Your task to perform on an android device: Clear the shopping cart on target. Search for "acer predator" on target, select the first entry, add it to the cart, then select checkout. Image 0: 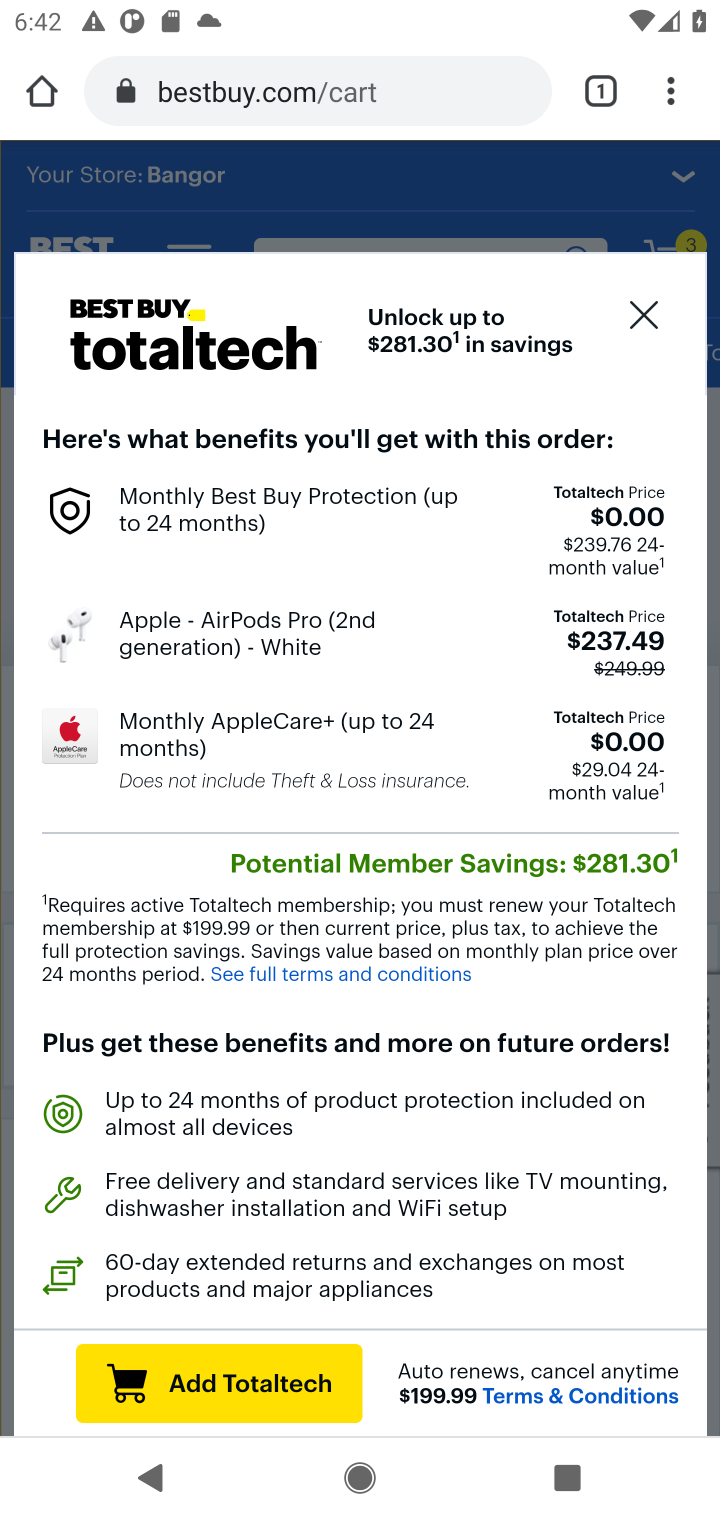
Step 0: click (368, 92)
Your task to perform on an android device: Clear the shopping cart on target. Search for "acer predator" on target, select the first entry, add it to the cart, then select checkout. Image 1: 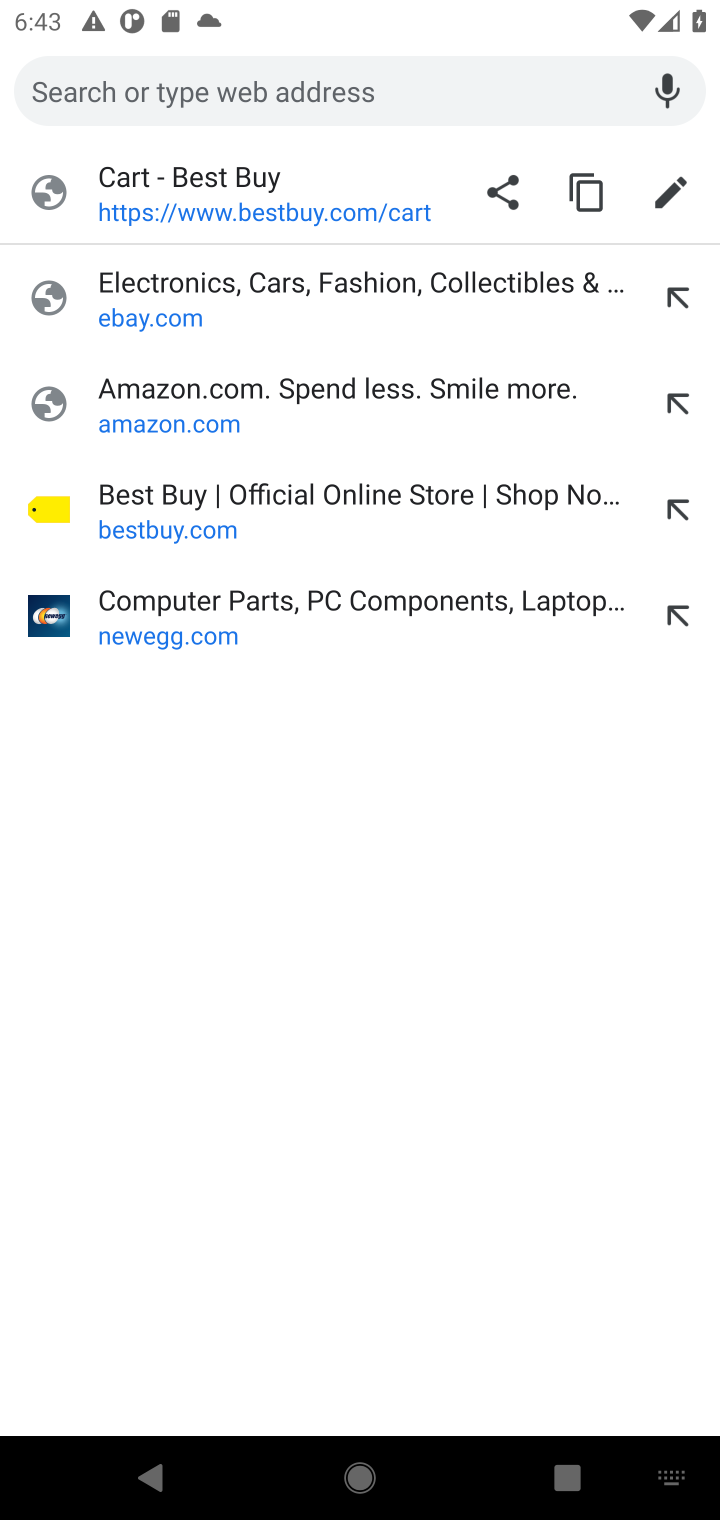
Step 1: type "target.com"
Your task to perform on an android device: Clear the shopping cart on target. Search for "acer predator" on target, select the first entry, add it to the cart, then select checkout. Image 2: 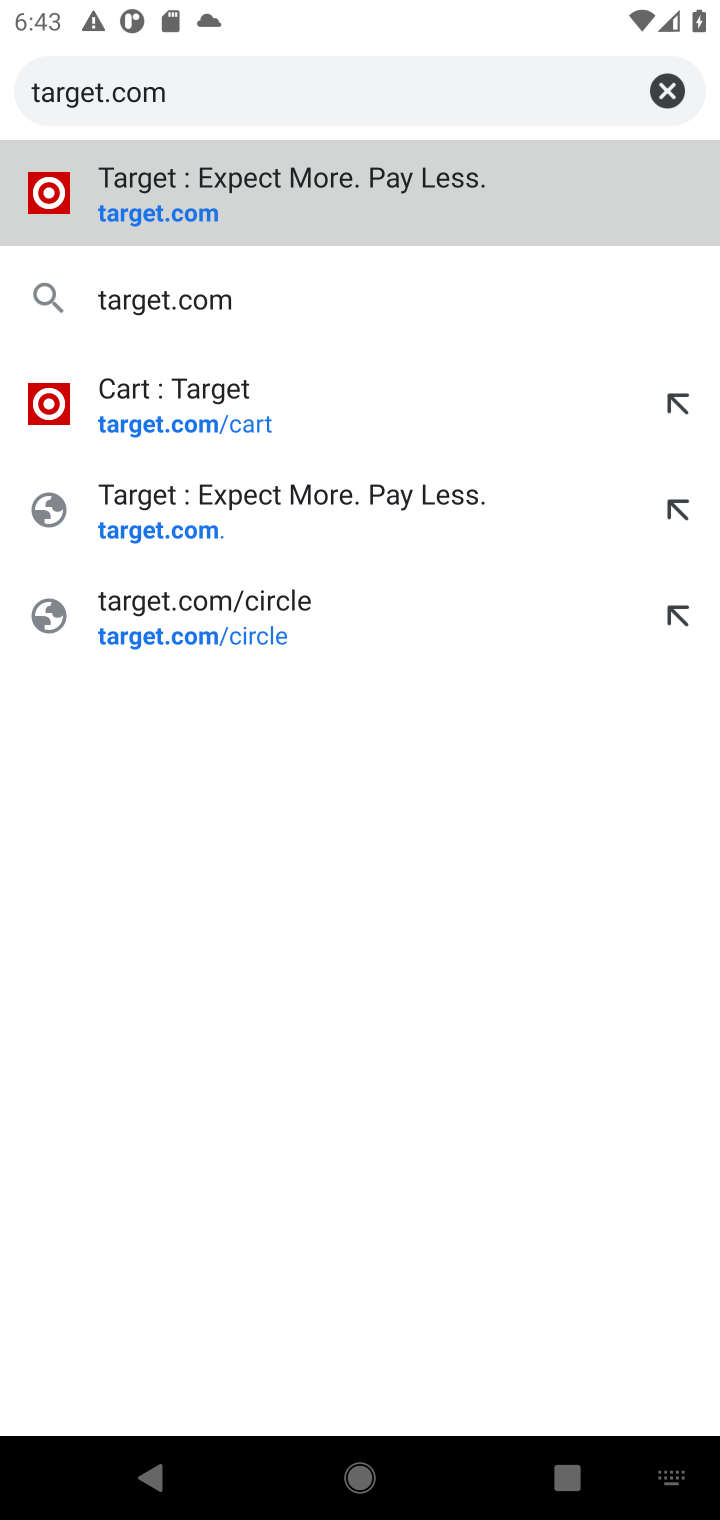
Step 2: press enter
Your task to perform on an android device: Clear the shopping cart on target. Search for "acer predator" on target, select the first entry, add it to the cart, then select checkout. Image 3: 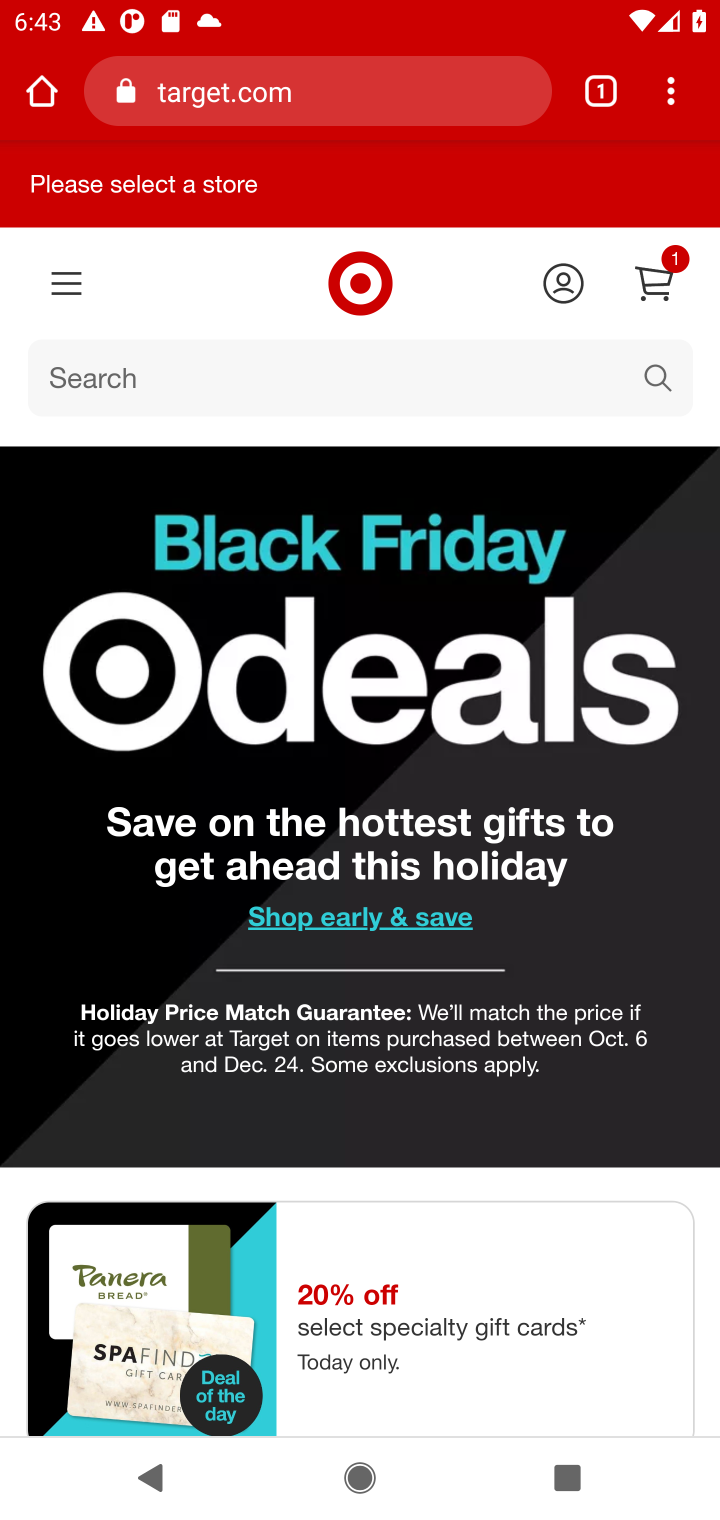
Step 3: click (678, 268)
Your task to perform on an android device: Clear the shopping cart on target. Search for "acer predator" on target, select the first entry, add it to the cart, then select checkout. Image 4: 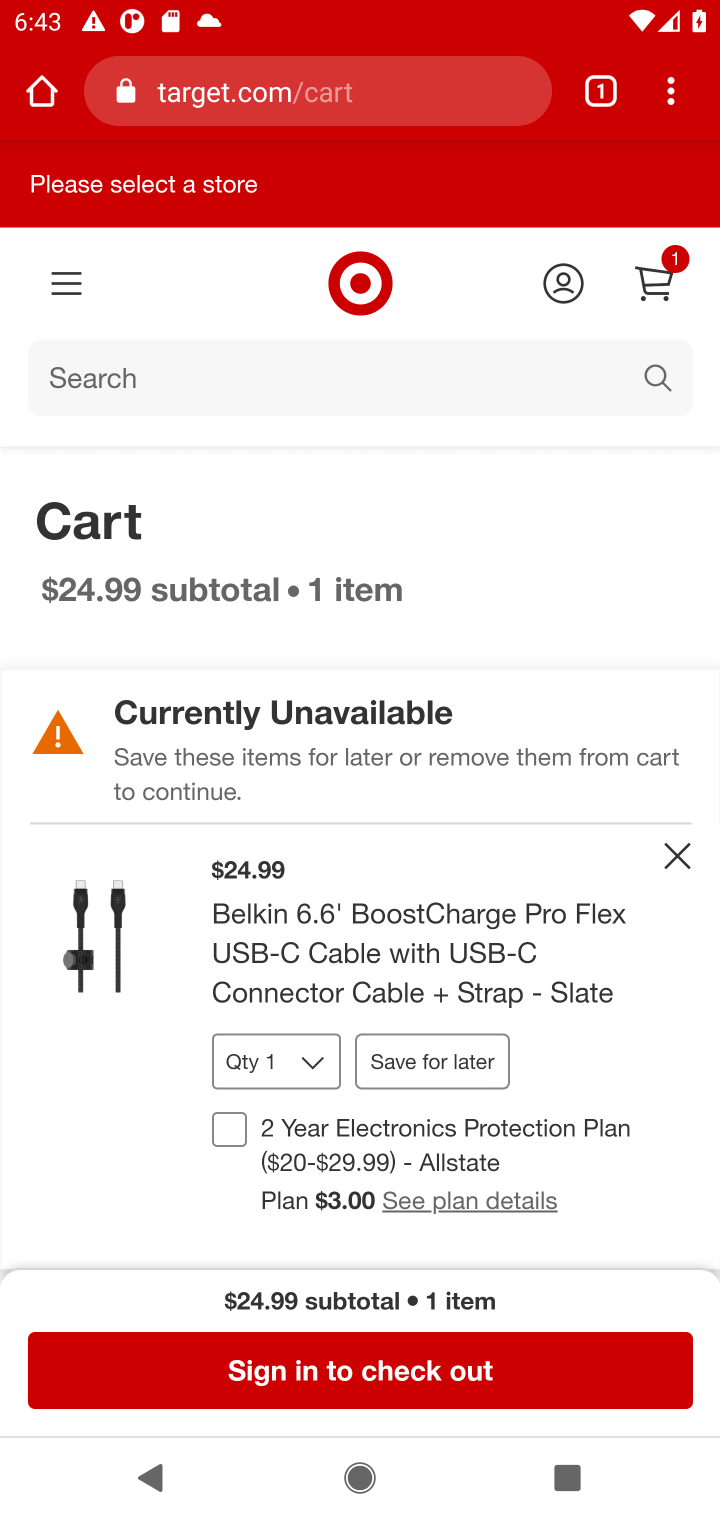
Step 4: click (684, 862)
Your task to perform on an android device: Clear the shopping cart on target. Search for "acer predator" on target, select the first entry, add it to the cart, then select checkout. Image 5: 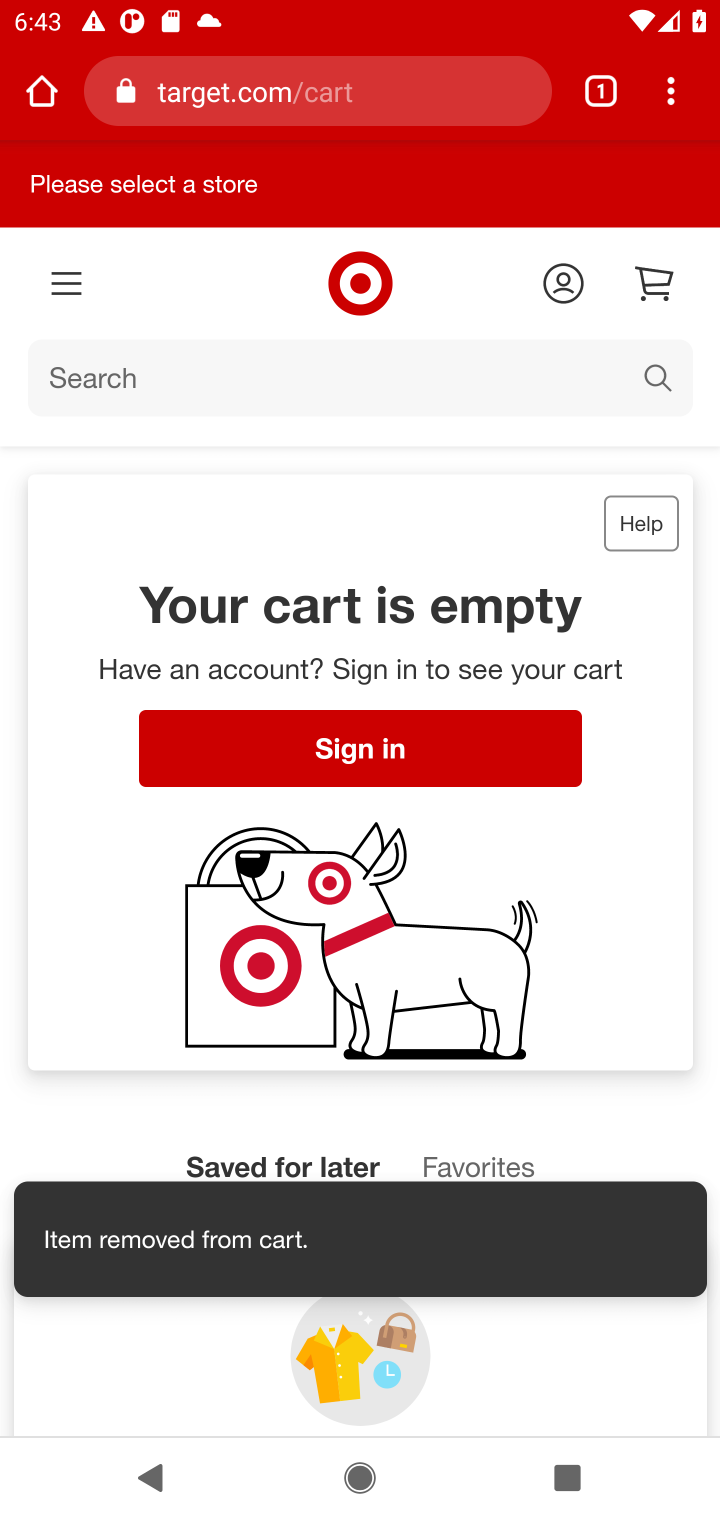
Step 5: click (233, 395)
Your task to perform on an android device: Clear the shopping cart on target. Search for "acer predator" on target, select the first entry, add it to the cart, then select checkout. Image 6: 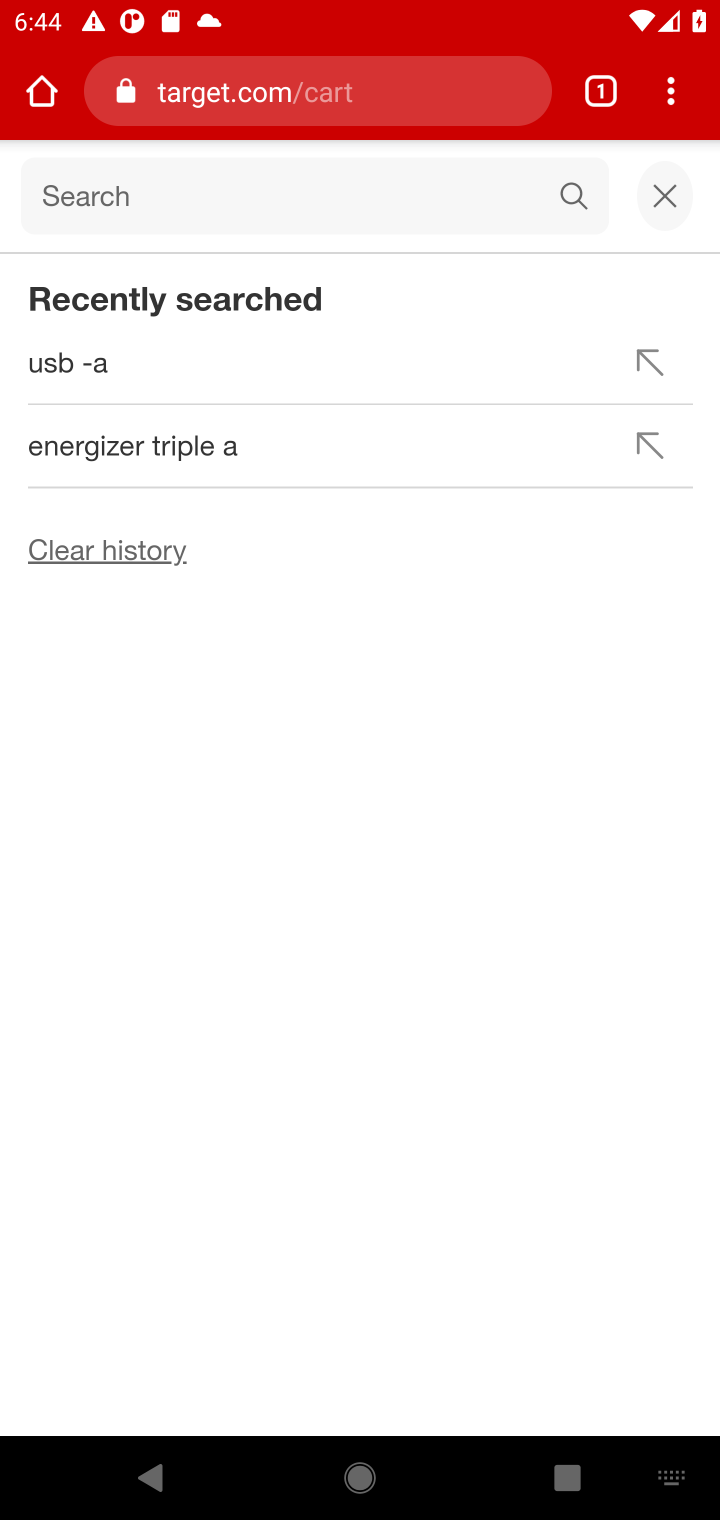
Step 6: type "acer predator"
Your task to perform on an android device: Clear the shopping cart on target. Search for "acer predator" on target, select the first entry, add it to the cart, then select checkout. Image 7: 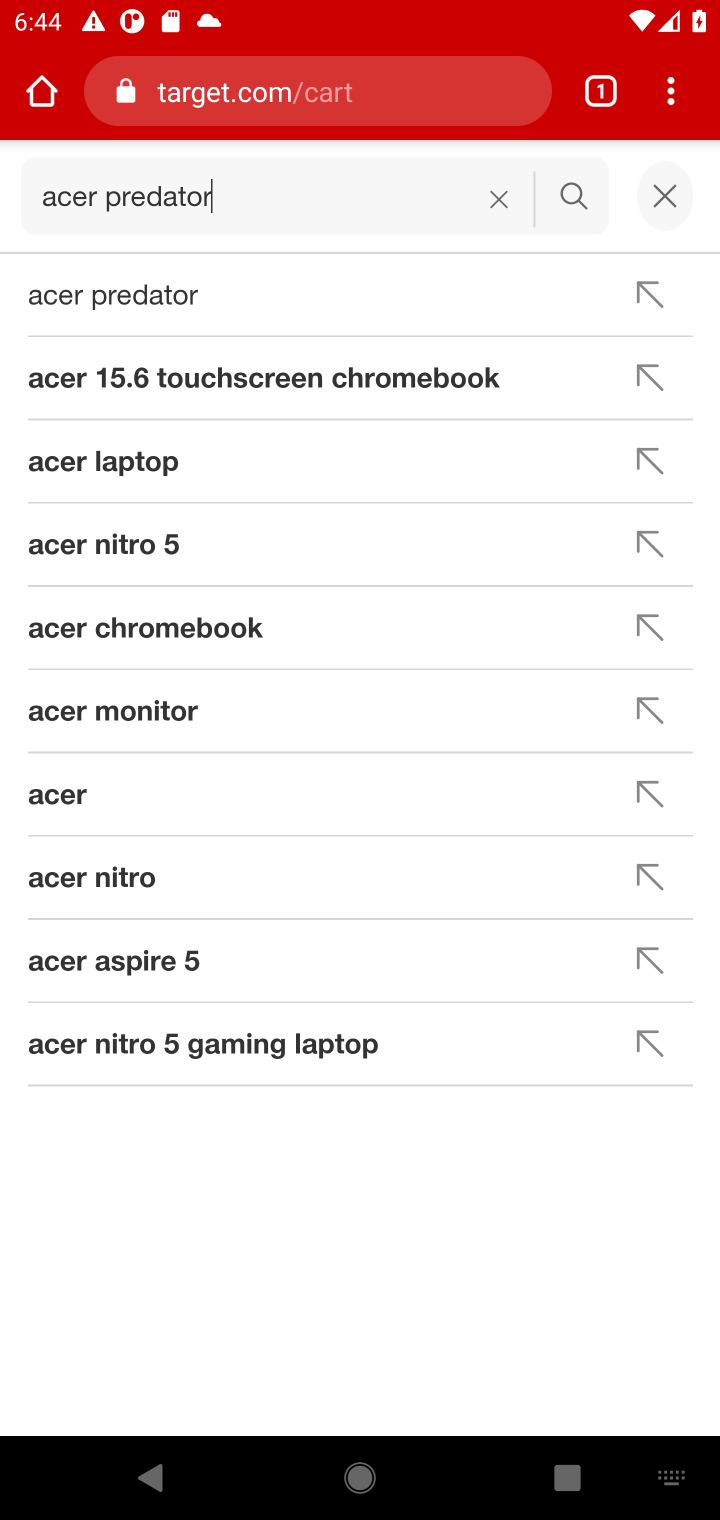
Step 7: press enter
Your task to perform on an android device: Clear the shopping cart on target. Search for "acer predator" on target, select the first entry, add it to the cart, then select checkout. Image 8: 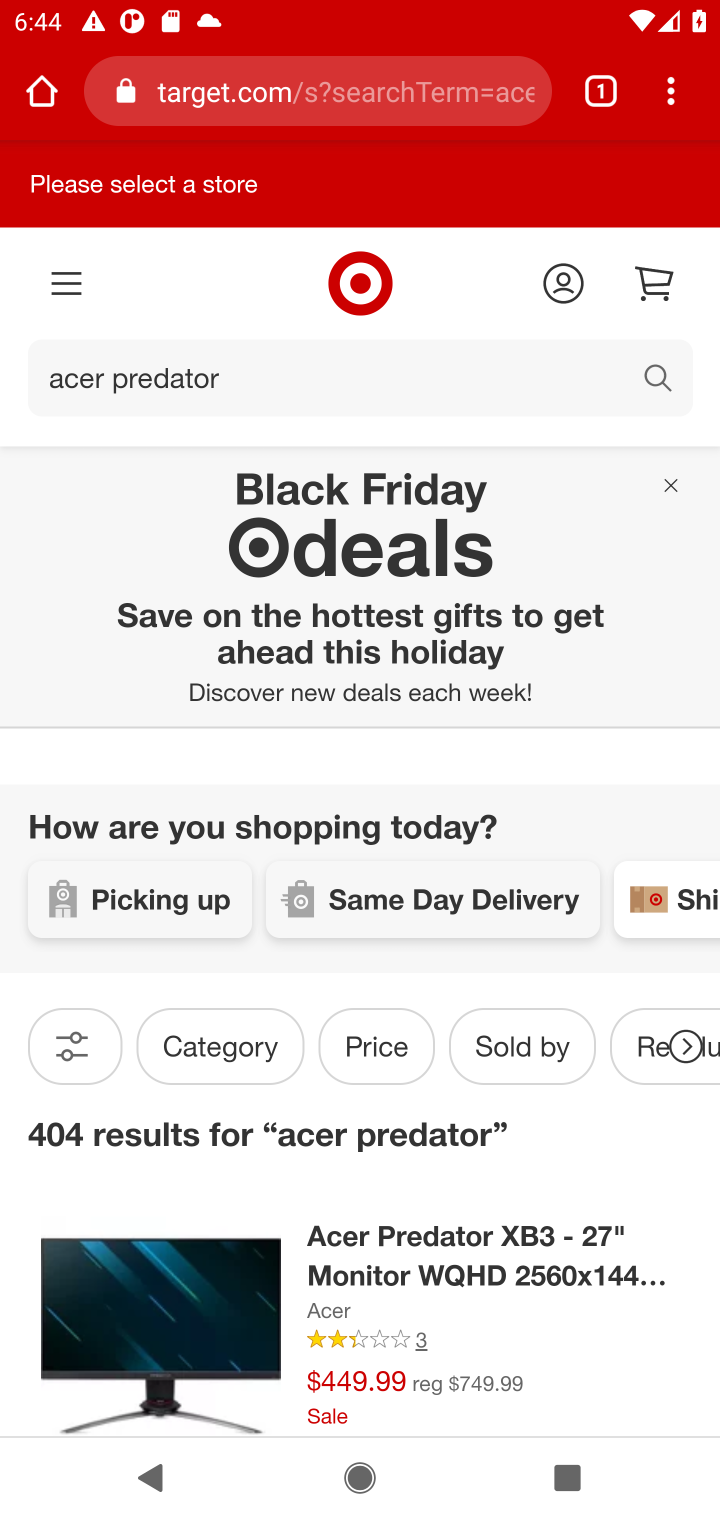
Step 8: click (490, 1250)
Your task to perform on an android device: Clear the shopping cart on target. Search for "acer predator" on target, select the first entry, add it to the cart, then select checkout. Image 9: 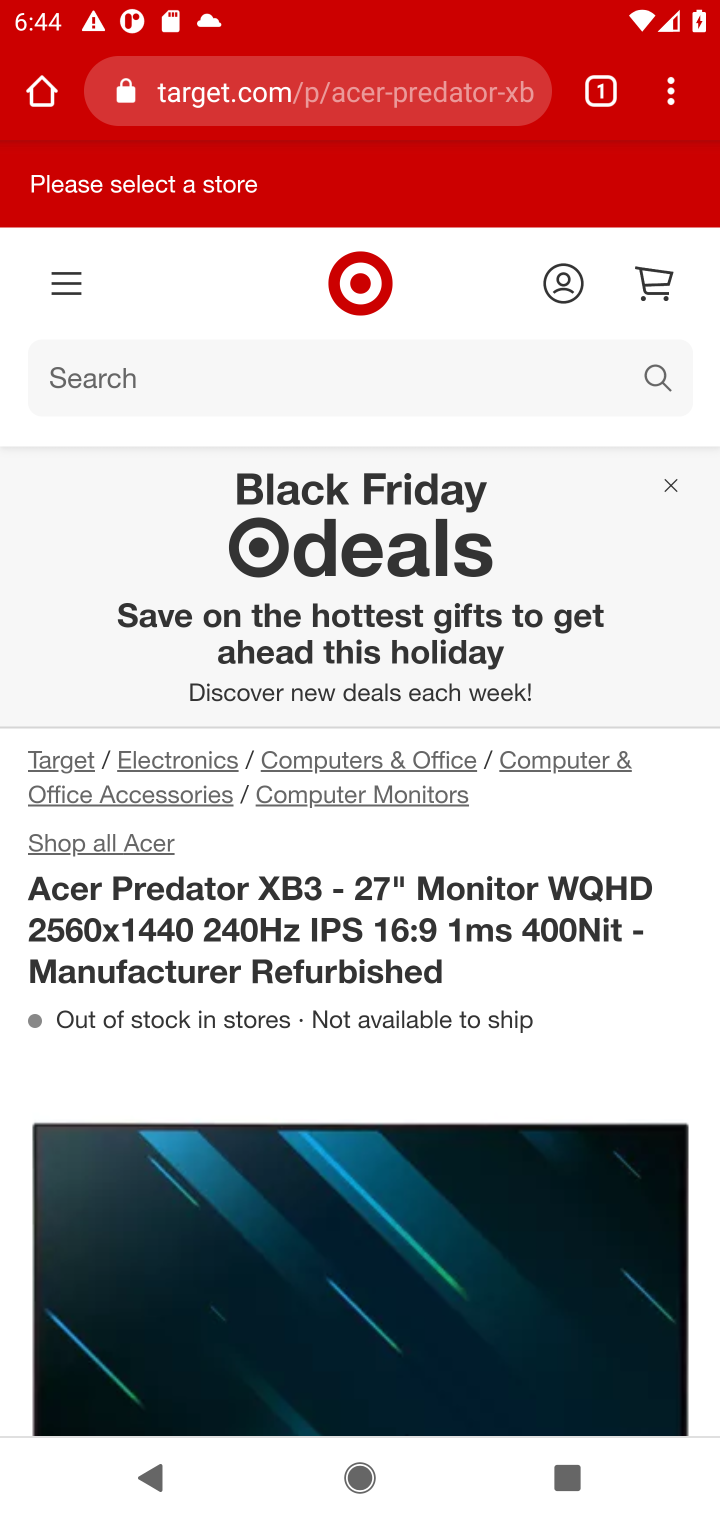
Step 9: drag from (488, 1244) to (418, 620)
Your task to perform on an android device: Clear the shopping cart on target. Search for "acer predator" on target, select the first entry, add it to the cart, then select checkout. Image 10: 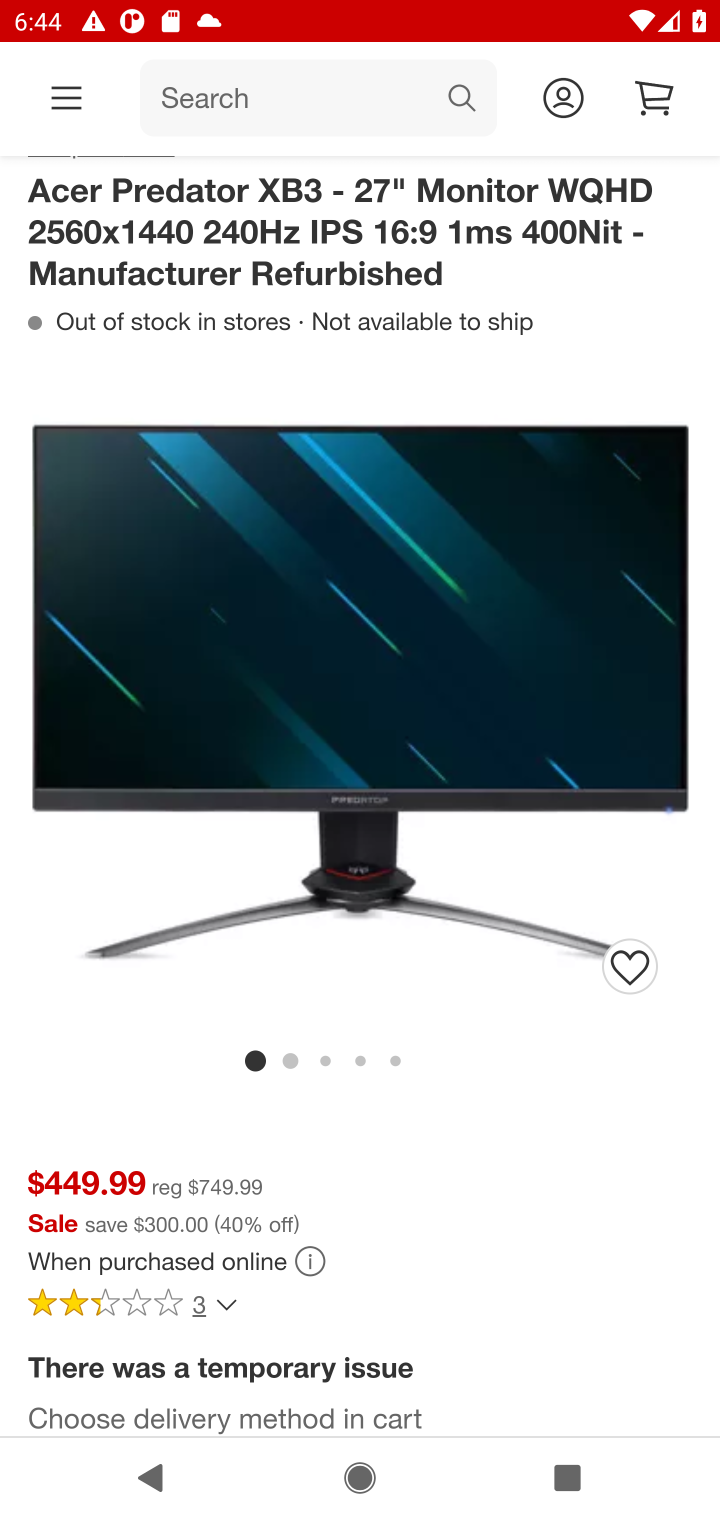
Step 10: drag from (388, 1211) to (392, 590)
Your task to perform on an android device: Clear the shopping cart on target. Search for "acer predator" on target, select the first entry, add it to the cart, then select checkout. Image 11: 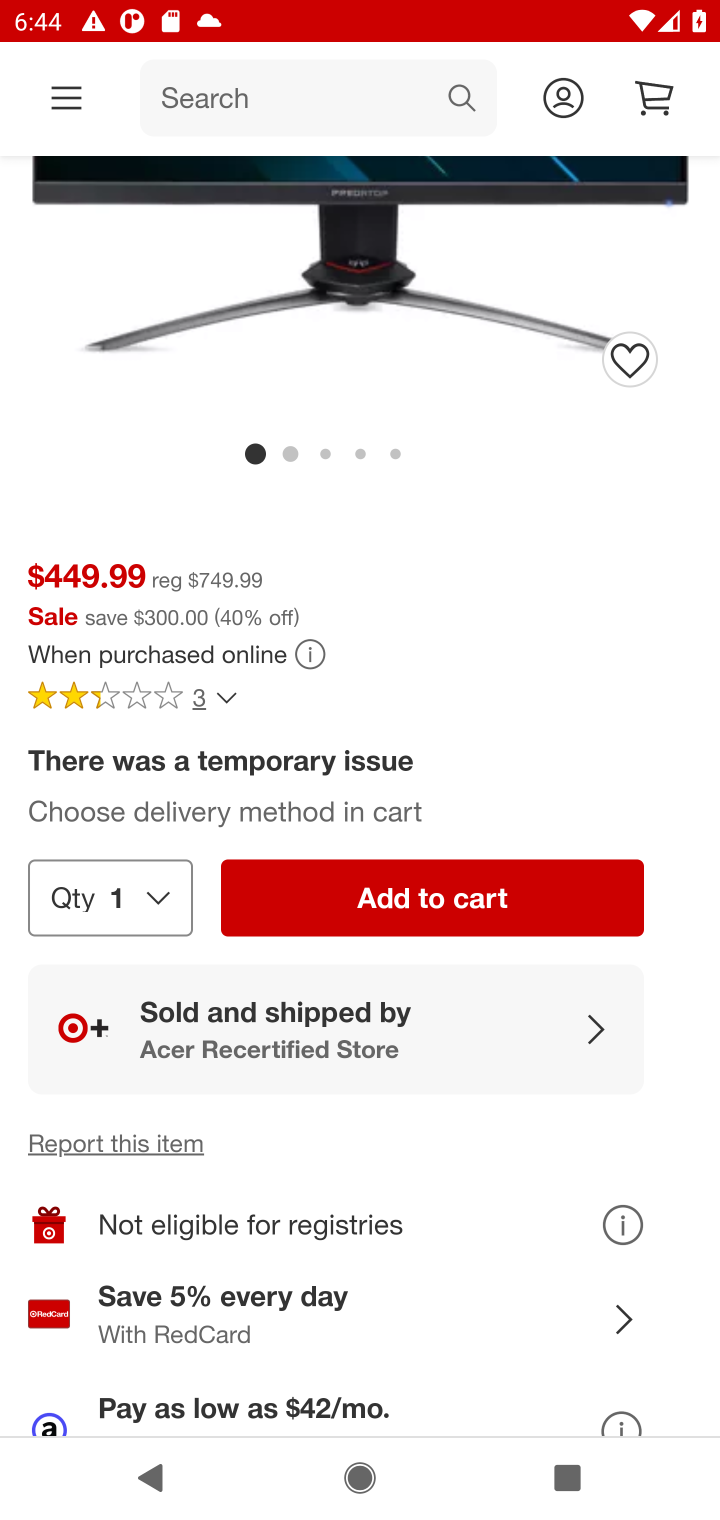
Step 11: click (437, 902)
Your task to perform on an android device: Clear the shopping cart on target. Search for "acer predator" on target, select the first entry, add it to the cart, then select checkout. Image 12: 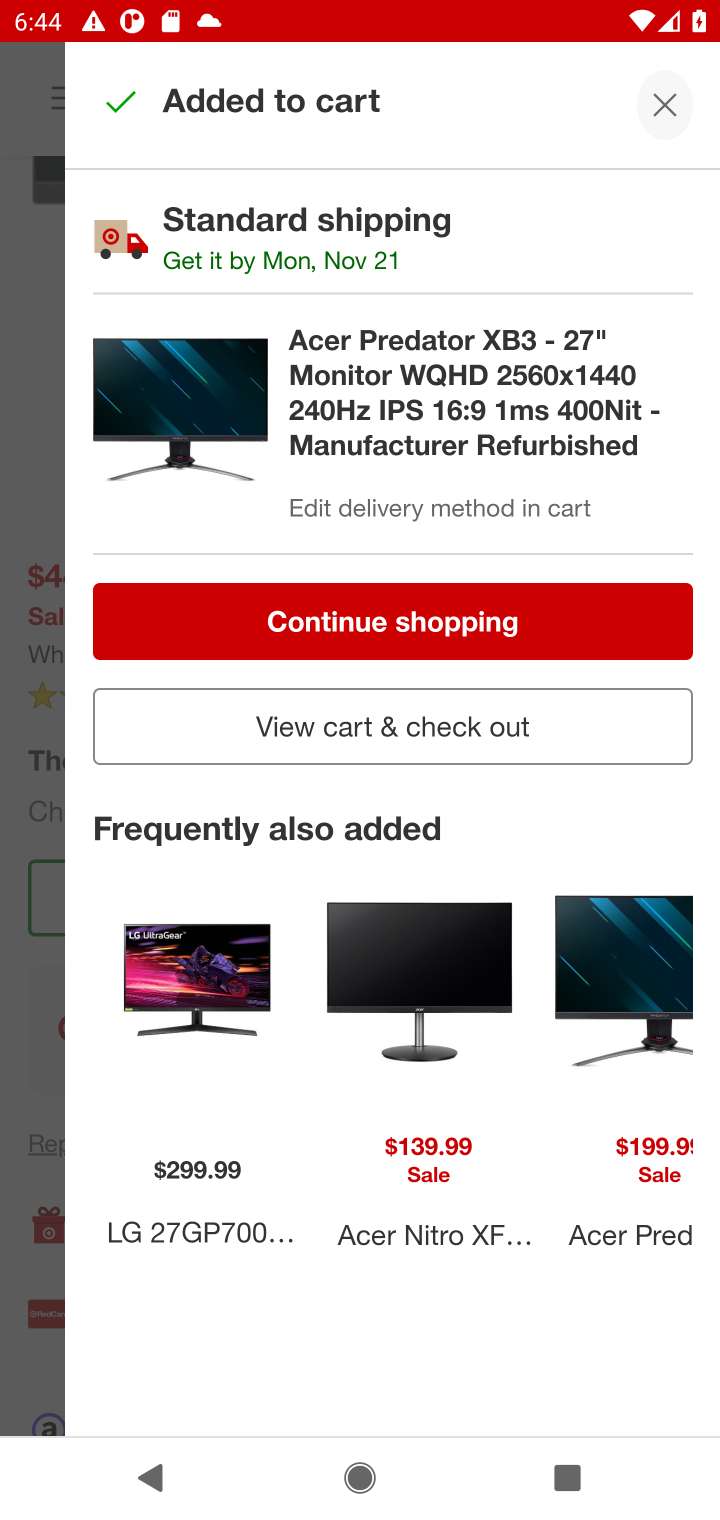
Step 12: click (526, 723)
Your task to perform on an android device: Clear the shopping cart on target. Search for "acer predator" on target, select the first entry, add it to the cart, then select checkout. Image 13: 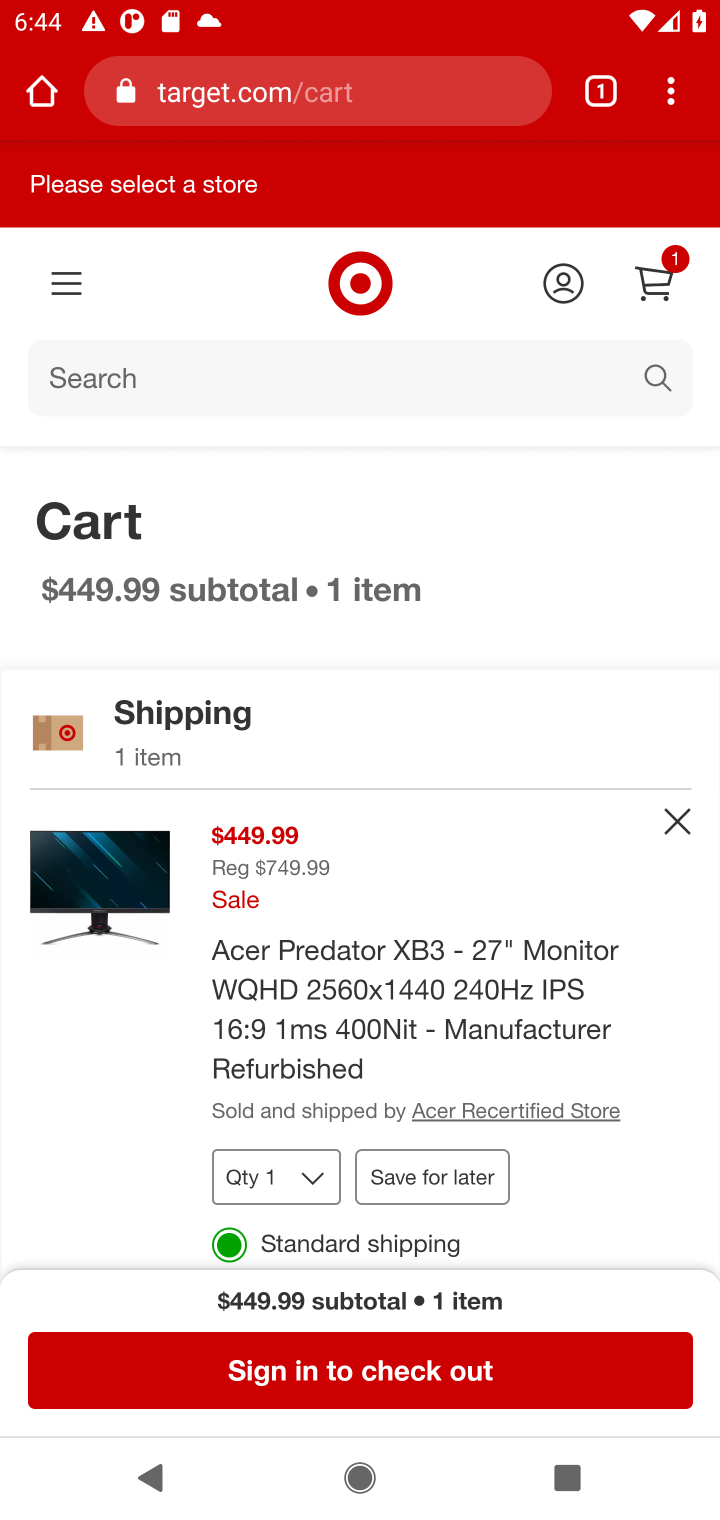
Step 13: task complete